Your task to perform on an android device: check out phone information Image 0: 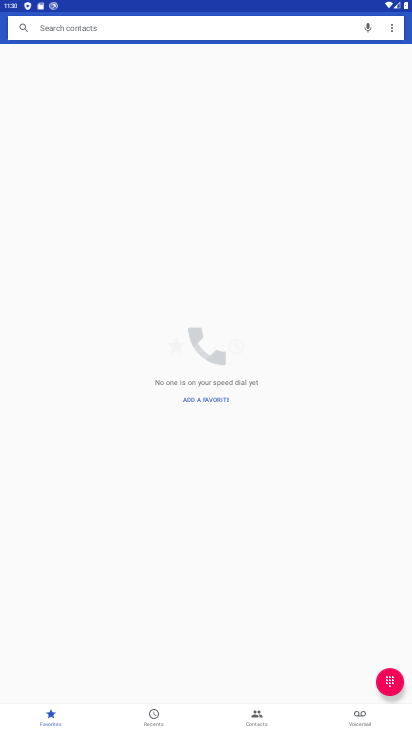
Step 0: press home button
Your task to perform on an android device: check out phone information Image 1: 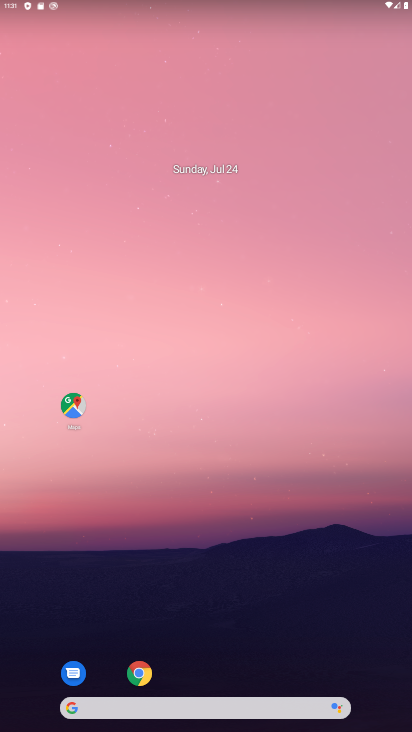
Step 1: drag from (230, 717) to (64, 724)
Your task to perform on an android device: check out phone information Image 2: 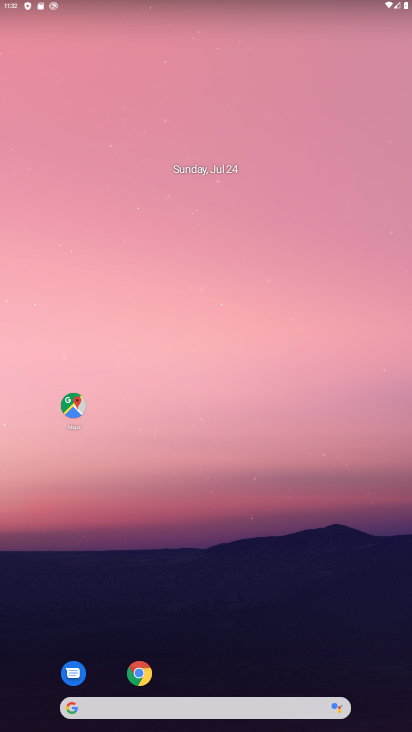
Step 2: drag from (148, 722) to (222, 51)
Your task to perform on an android device: check out phone information Image 3: 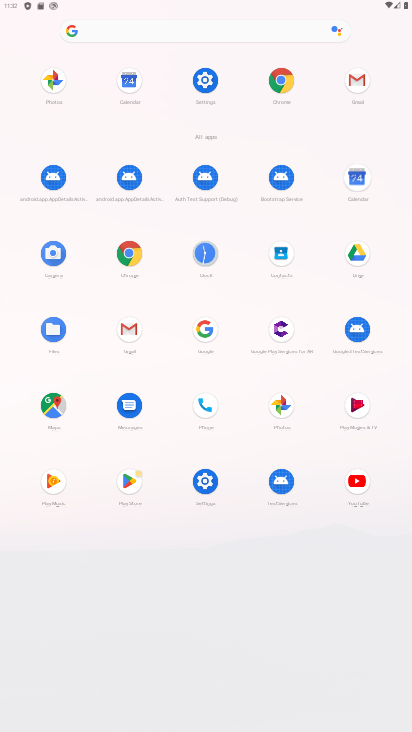
Step 3: click (208, 81)
Your task to perform on an android device: check out phone information Image 4: 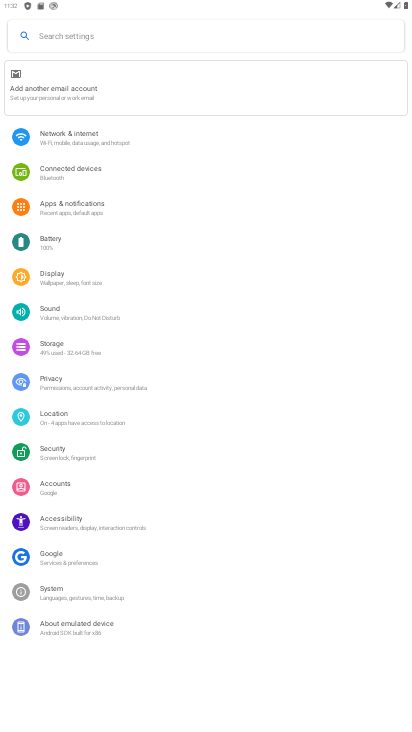
Step 4: click (116, 631)
Your task to perform on an android device: check out phone information Image 5: 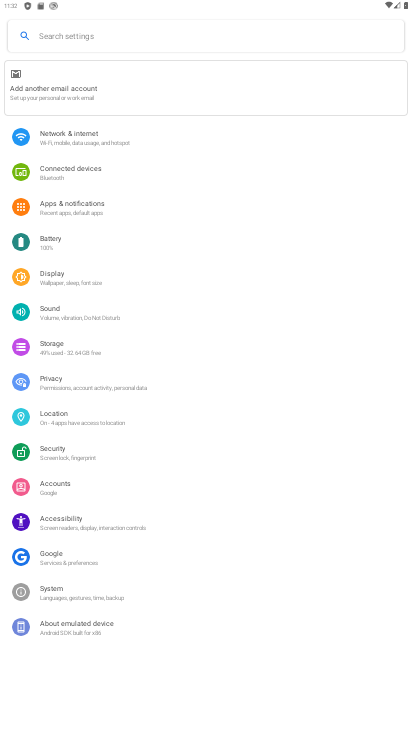
Step 5: click (116, 631)
Your task to perform on an android device: check out phone information Image 6: 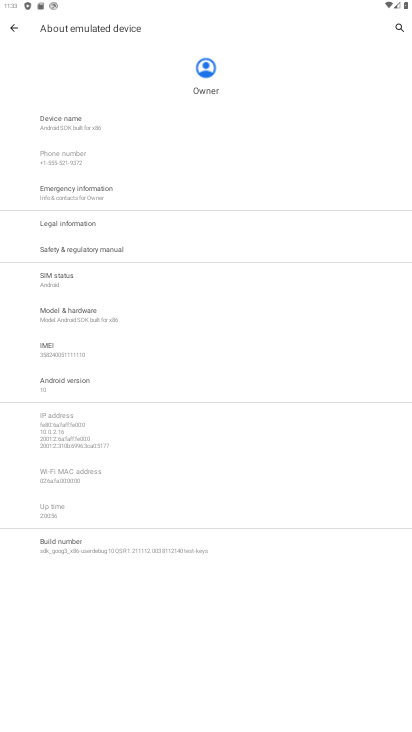
Step 6: task complete